Your task to perform on an android device: Search for seafood restaurants on Google Maps Image 0: 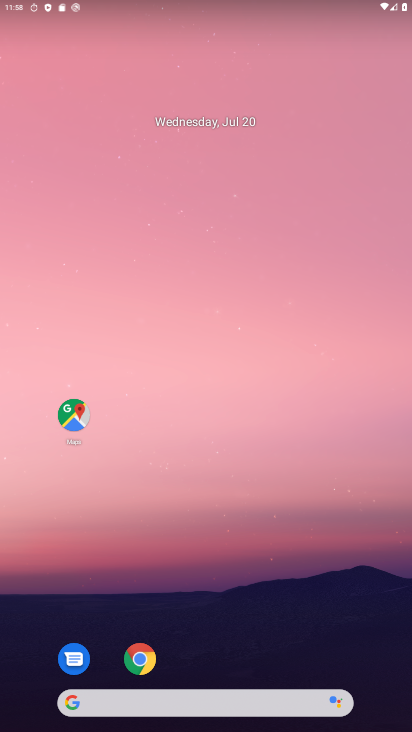
Step 0: drag from (233, 54) to (283, 9)
Your task to perform on an android device: Search for seafood restaurants on Google Maps Image 1: 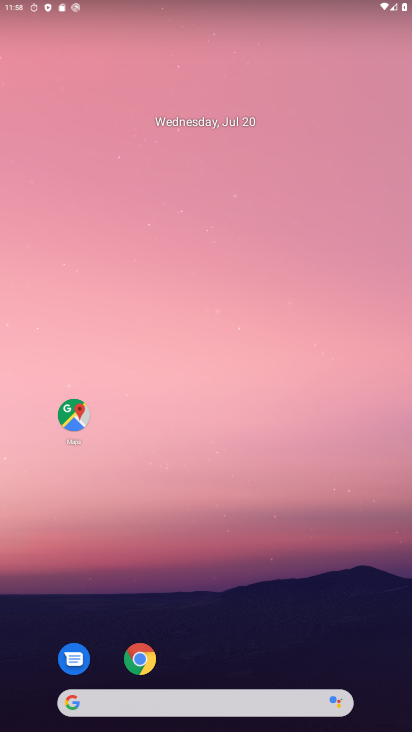
Step 1: drag from (295, 533) to (260, 71)
Your task to perform on an android device: Search for seafood restaurants on Google Maps Image 2: 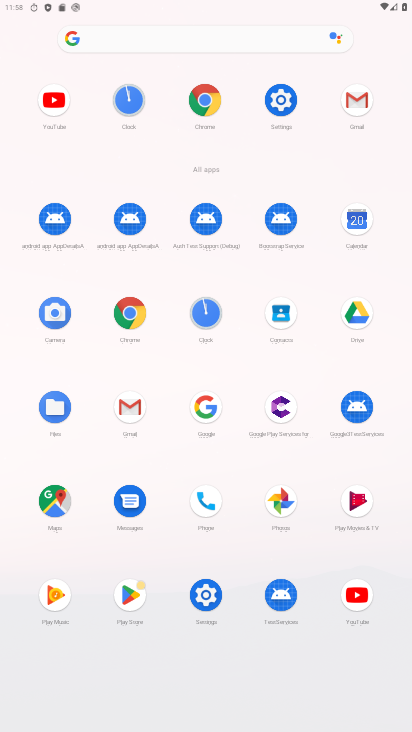
Step 2: click (54, 504)
Your task to perform on an android device: Search for seafood restaurants on Google Maps Image 3: 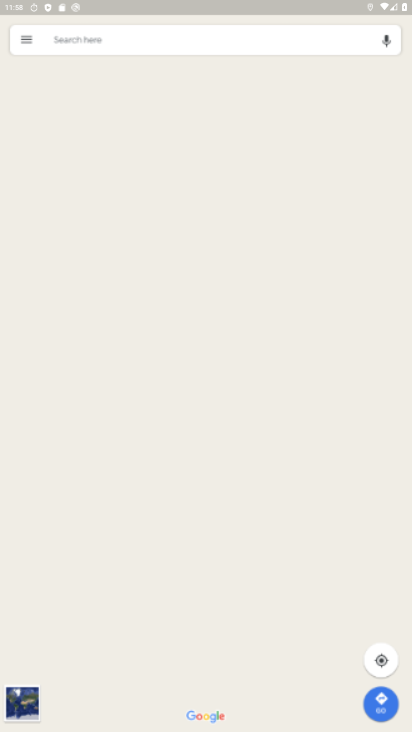
Step 3: click (335, 35)
Your task to perform on an android device: Search for seafood restaurants on Google Maps Image 4: 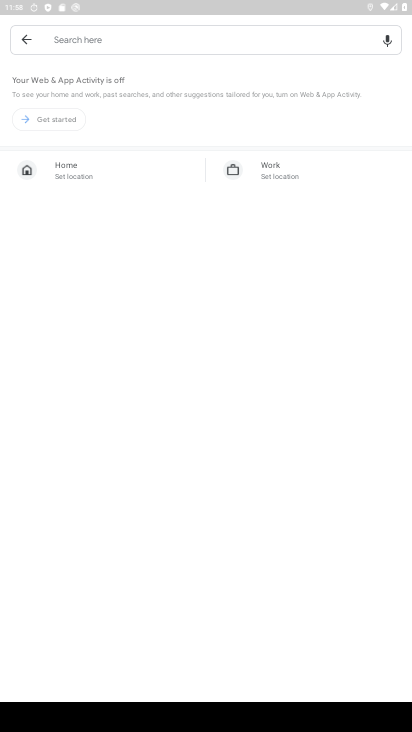
Step 4: type "seafood restaurants"
Your task to perform on an android device: Search for seafood restaurants on Google Maps Image 5: 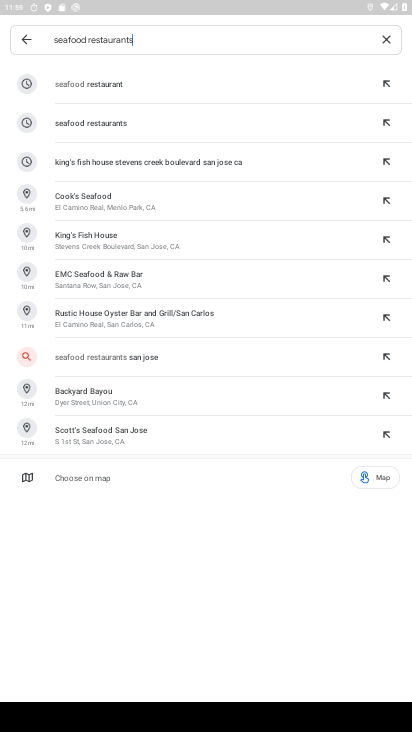
Step 5: press enter
Your task to perform on an android device: Search for seafood restaurants on Google Maps Image 6: 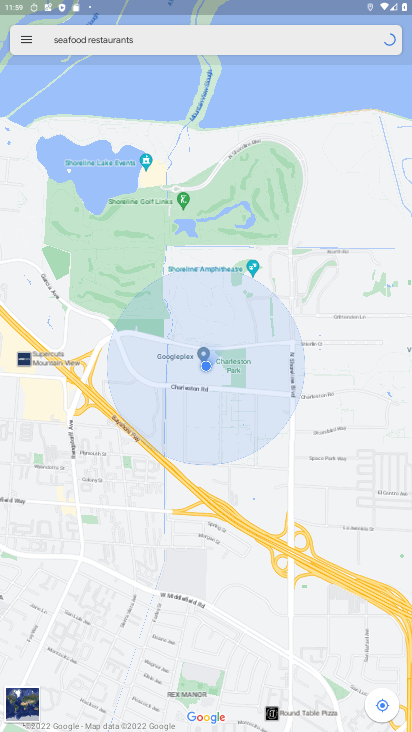
Step 6: task complete